Your task to perform on an android device: toggle wifi Image 0: 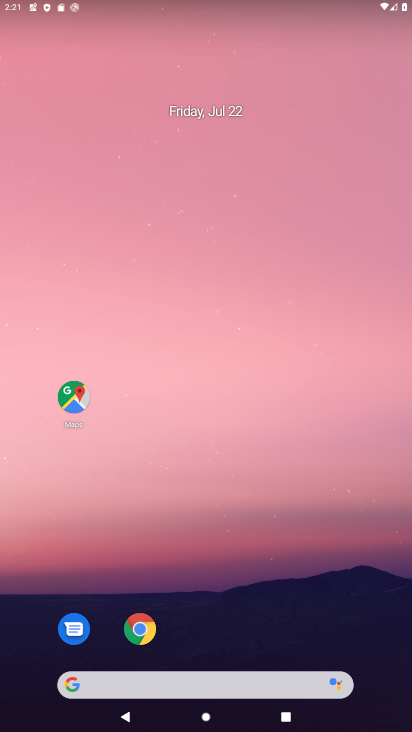
Step 0: drag from (204, 681) to (201, 41)
Your task to perform on an android device: toggle wifi Image 1: 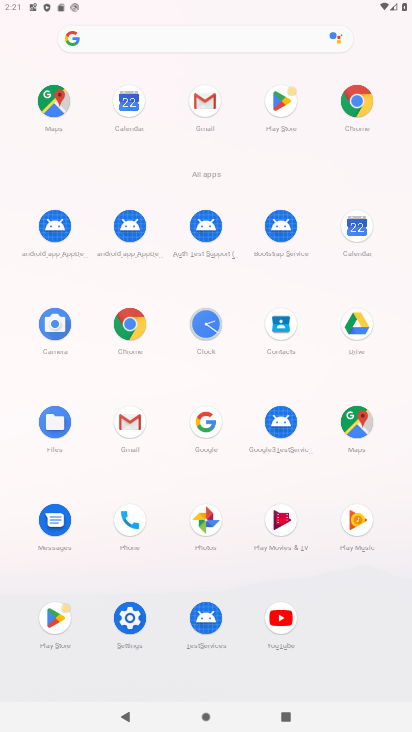
Step 1: click (129, 612)
Your task to perform on an android device: toggle wifi Image 2: 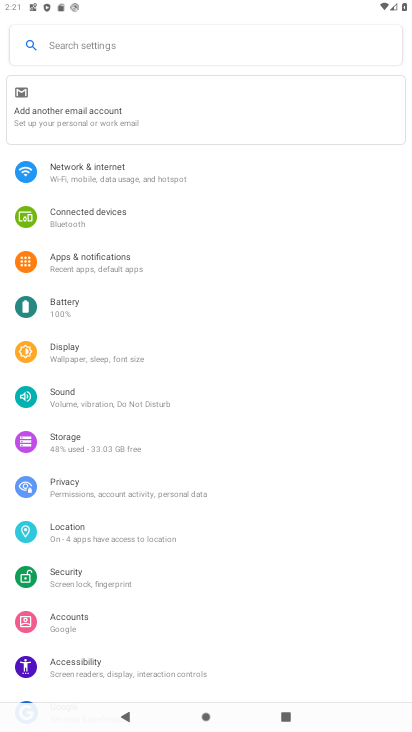
Step 2: click (58, 163)
Your task to perform on an android device: toggle wifi Image 3: 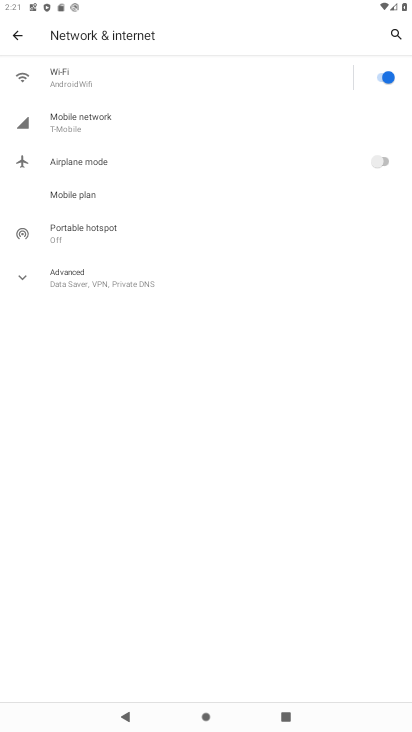
Step 3: click (385, 84)
Your task to perform on an android device: toggle wifi Image 4: 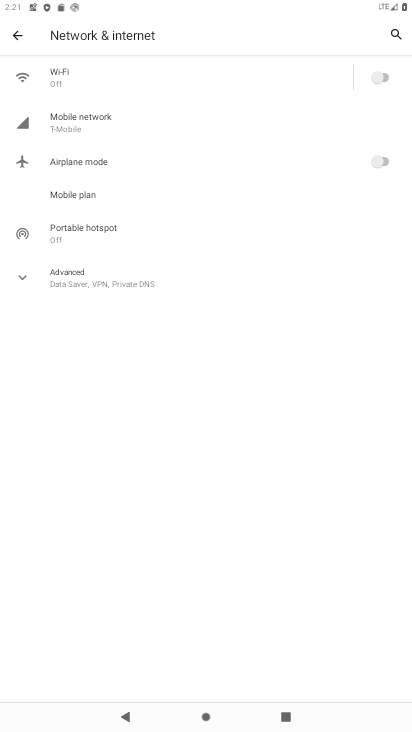
Step 4: task complete